Your task to perform on an android device: open app "Nova Launcher" (install if not already installed), go to login, and select forgot password Image 0: 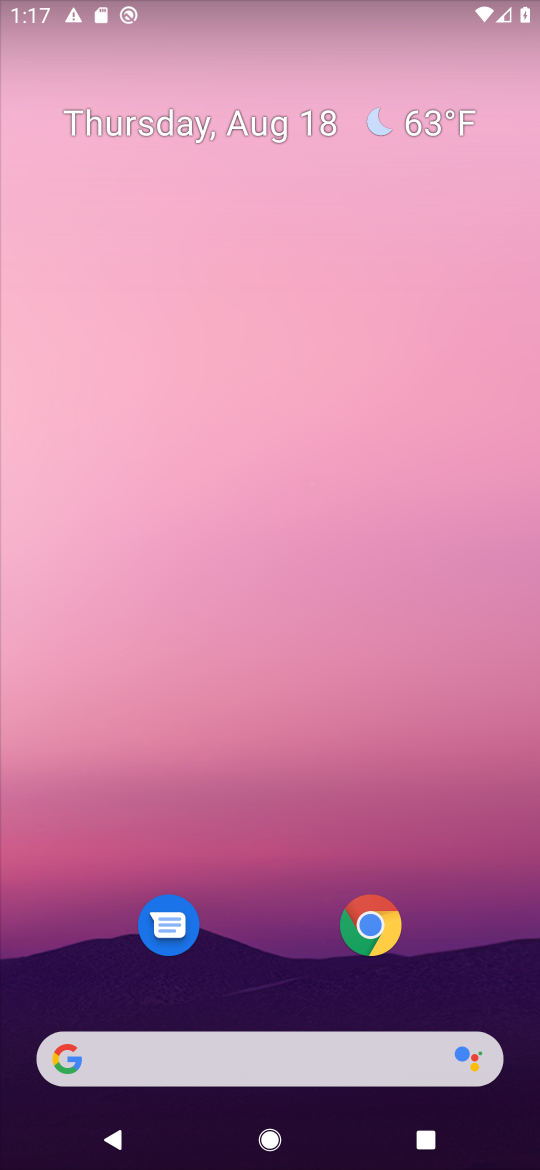
Step 0: drag from (242, 1001) to (277, 286)
Your task to perform on an android device: open app "Nova Launcher" (install if not already installed), go to login, and select forgot password Image 1: 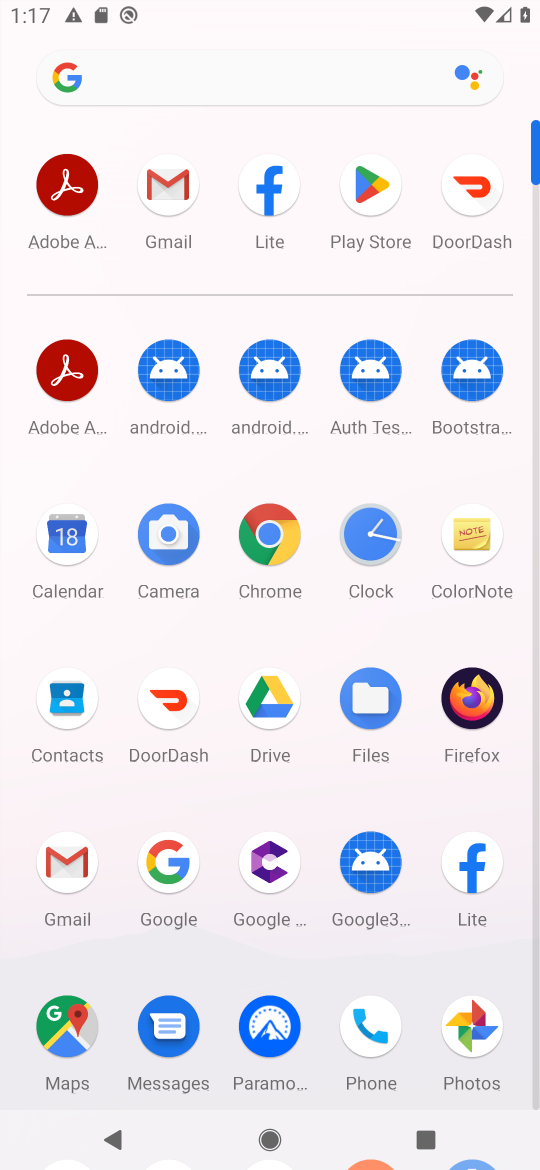
Step 1: click (364, 192)
Your task to perform on an android device: open app "Nova Launcher" (install if not already installed), go to login, and select forgot password Image 2: 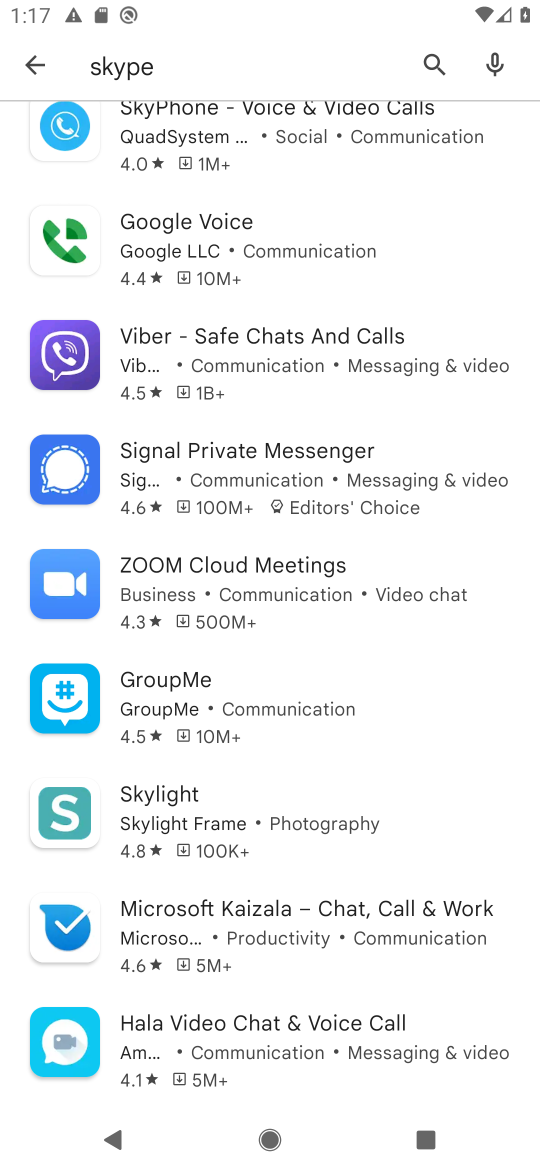
Step 2: click (40, 70)
Your task to perform on an android device: open app "Nova Launcher" (install if not already installed), go to login, and select forgot password Image 3: 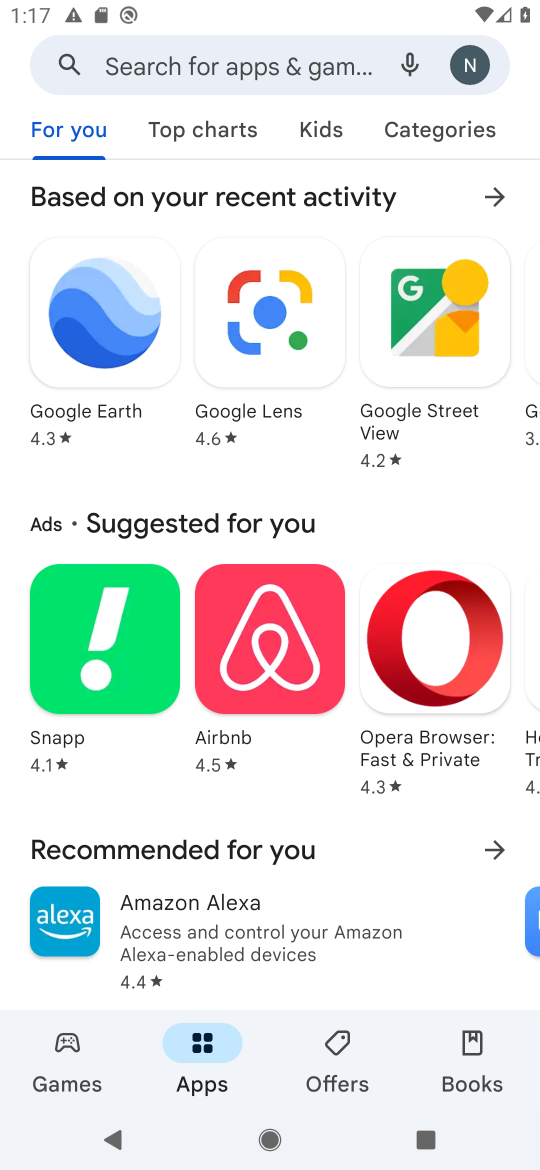
Step 3: click (193, 68)
Your task to perform on an android device: open app "Nova Launcher" (install if not already installed), go to login, and select forgot password Image 4: 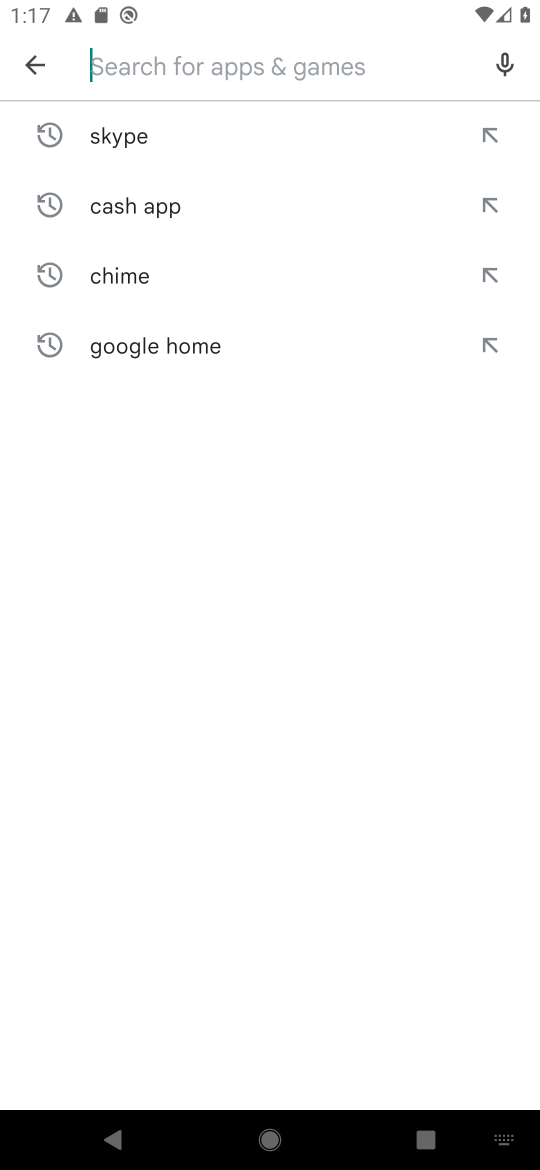
Step 4: type "Nova Launcher"
Your task to perform on an android device: open app "Nova Launcher" (install if not already installed), go to login, and select forgot password Image 5: 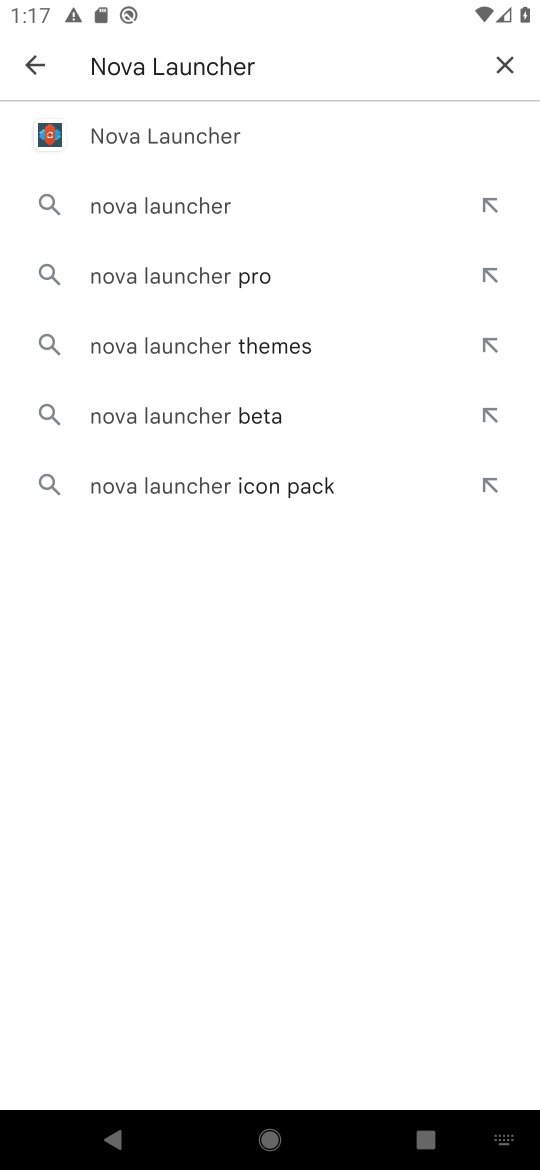
Step 5: click (226, 140)
Your task to perform on an android device: open app "Nova Launcher" (install if not already installed), go to login, and select forgot password Image 6: 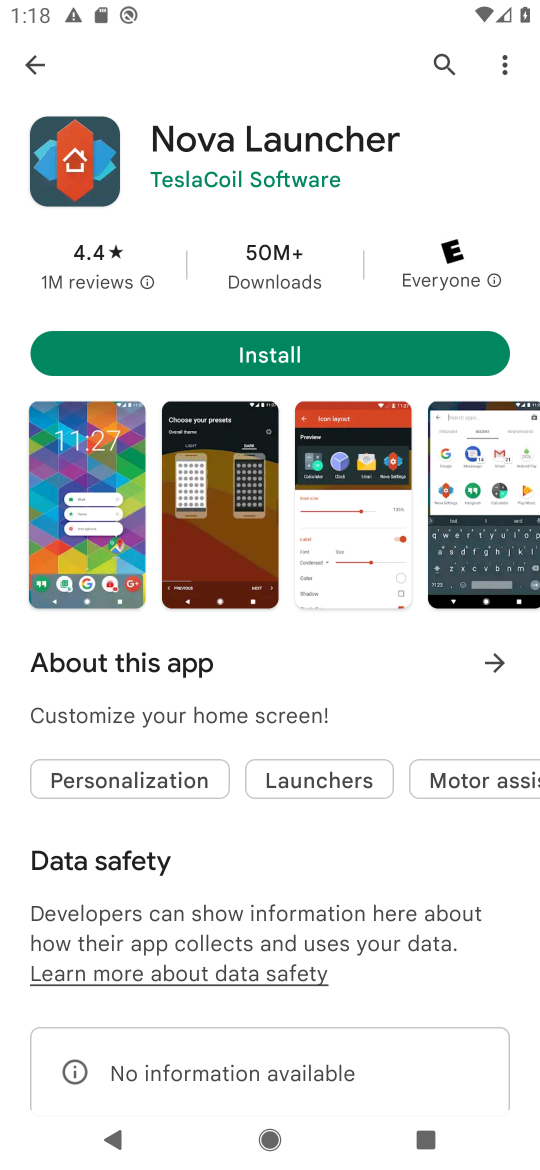
Step 6: click (269, 352)
Your task to perform on an android device: open app "Nova Launcher" (install if not already installed), go to login, and select forgot password Image 7: 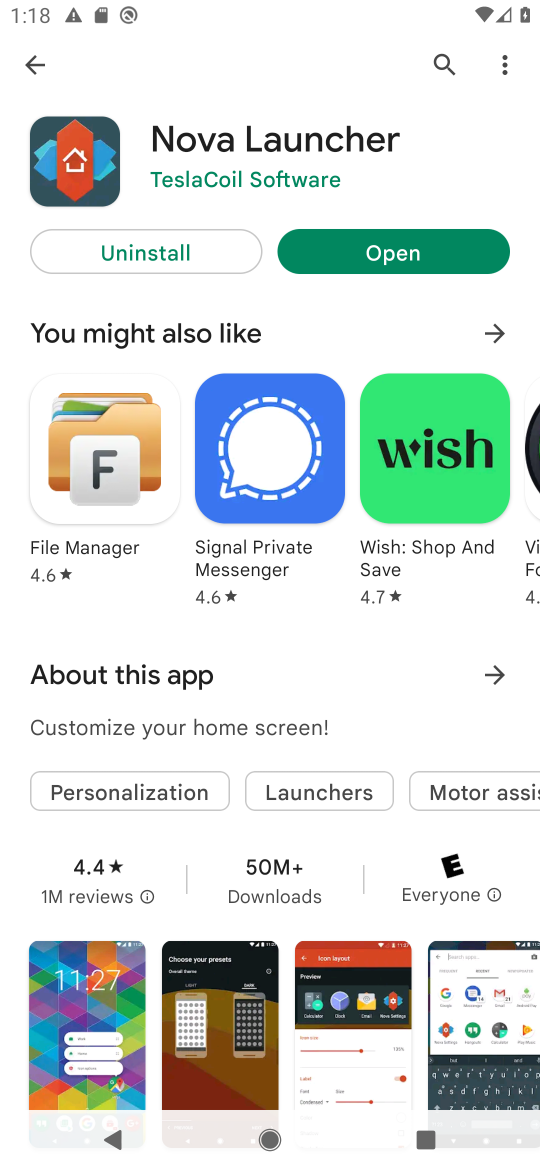
Step 7: click (342, 260)
Your task to perform on an android device: open app "Nova Launcher" (install if not already installed), go to login, and select forgot password Image 8: 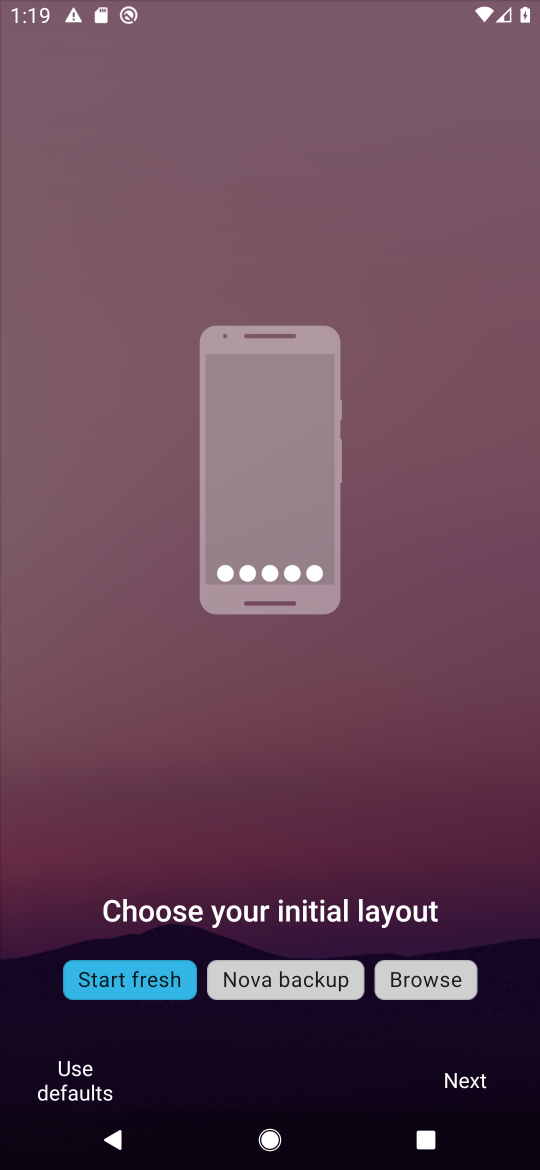
Step 8: click (468, 1070)
Your task to perform on an android device: open app "Nova Launcher" (install if not already installed), go to login, and select forgot password Image 9: 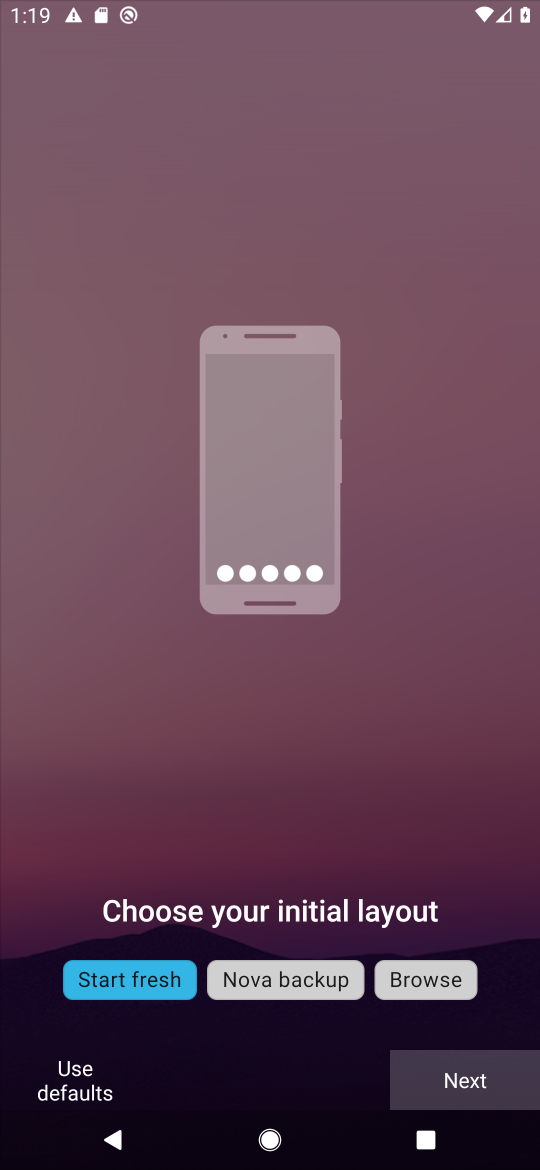
Step 9: click (468, 1070)
Your task to perform on an android device: open app "Nova Launcher" (install if not already installed), go to login, and select forgot password Image 10: 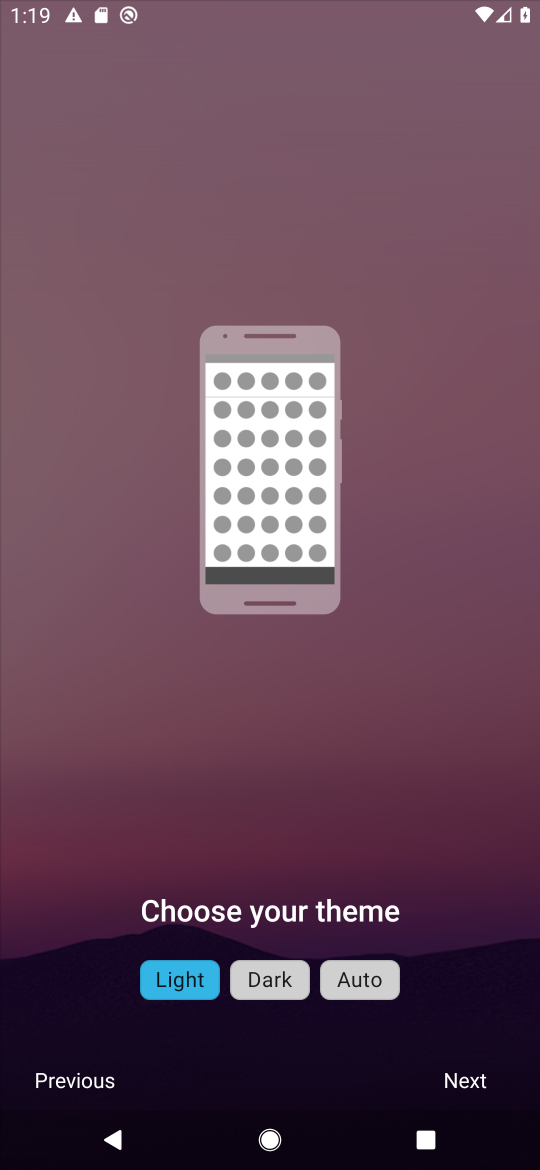
Step 10: click (468, 1070)
Your task to perform on an android device: open app "Nova Launcher" (install if not already installed), go to login, and select forgot password Image 11: 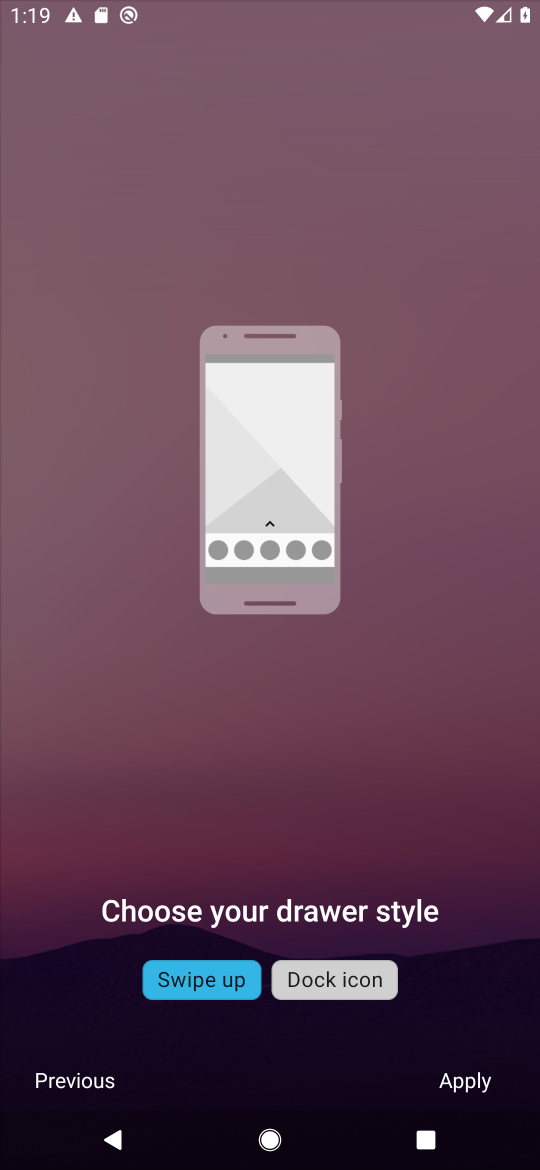
Step 11: click (468, 1070)
Your task to perform on an android device: open app "Nova Launcher" (install if not already installed), go to login, and select forgot password Image 12: 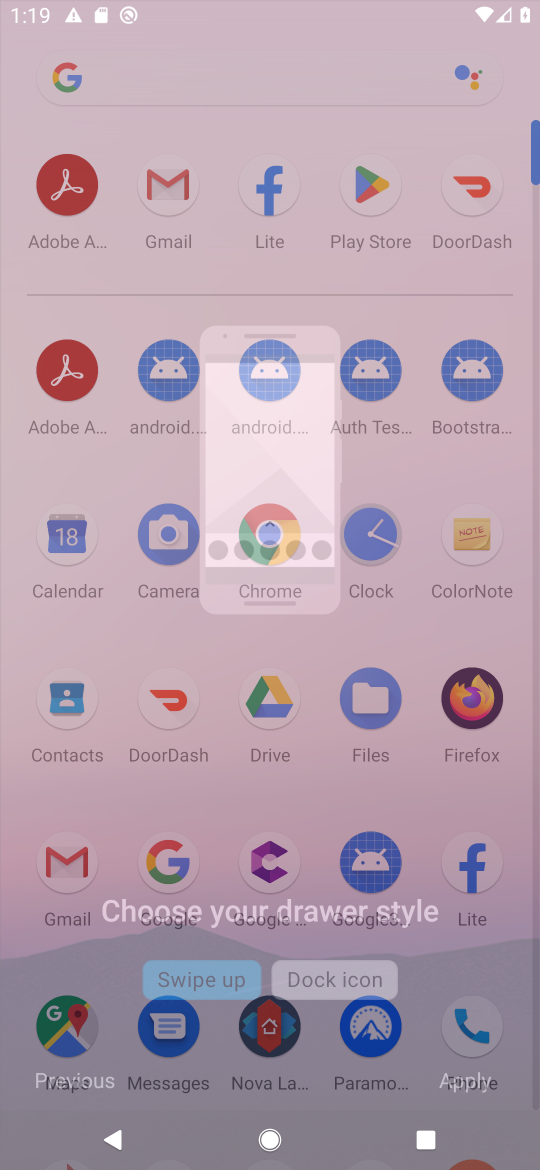
Step 12: click (468, 1070)
Your task to perform on an android device: open app "Nova Launcher" (install if not already installed), go to login, and select forgot password Image 13: 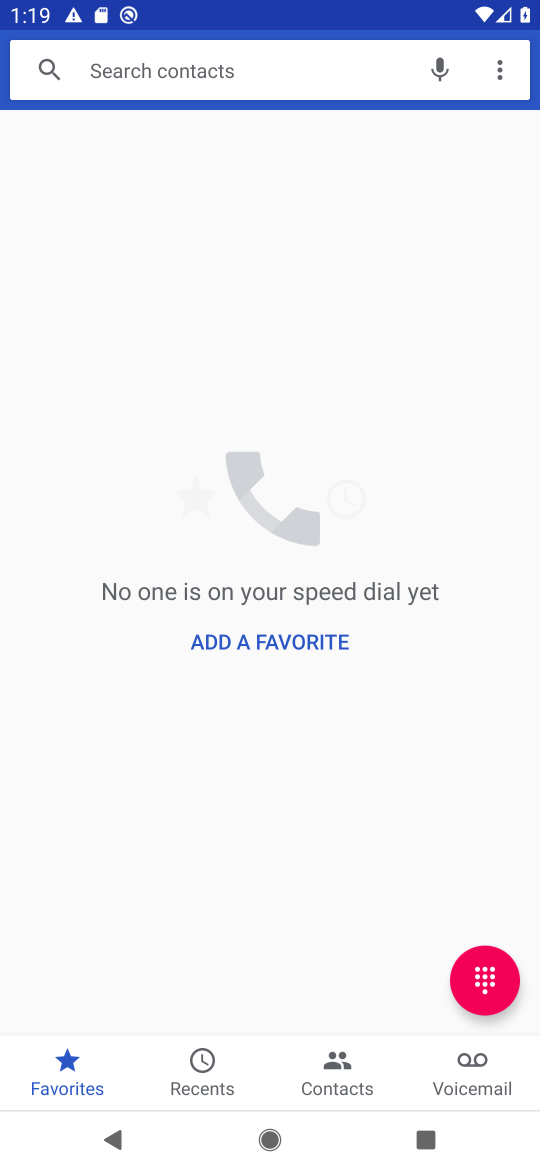
Step 13: press home button
Your task to perform on an android device: open app "Nova Launcher" (install if not already installed), go to login, and select forgot password Image 14: 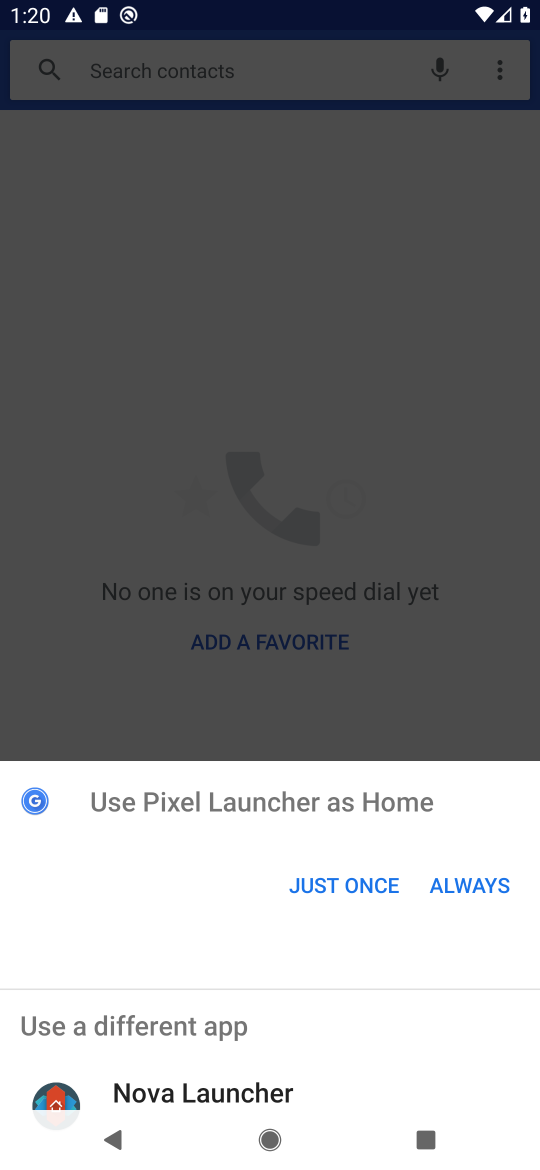
Step 14: click (476, 884)
Your task to perform on an android device: open app "Nova Launcher" (install if not already installed), go to login, and select forgot password Image 15: 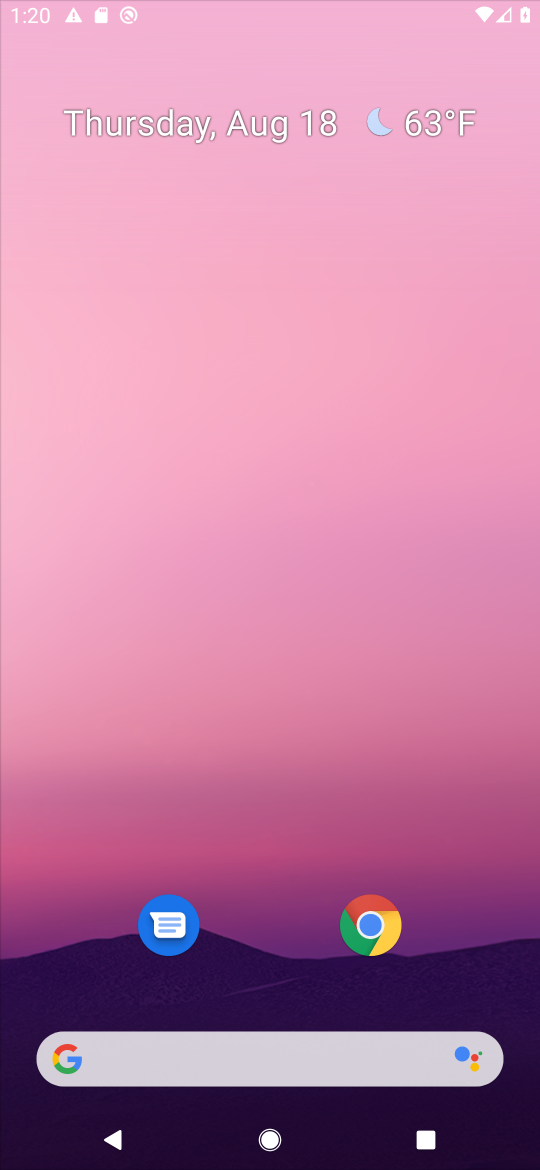
Step 15: task complete